Your task to perform on an android device: check out phone information Image 0: 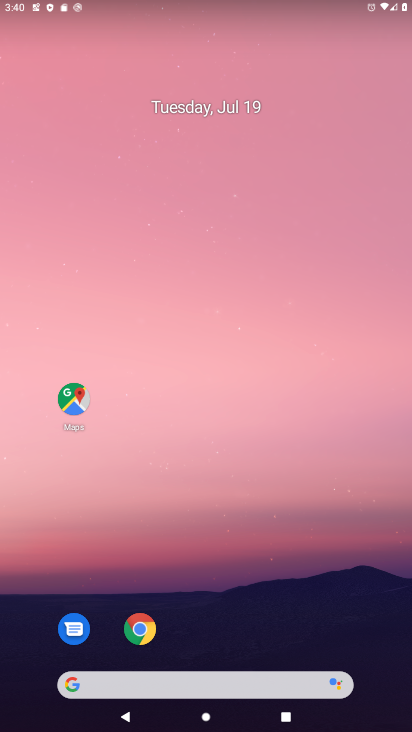
Step 0: drag from (239, 673) to (240, 200)
Your task to perform on an android device: check out phone information Image 1: 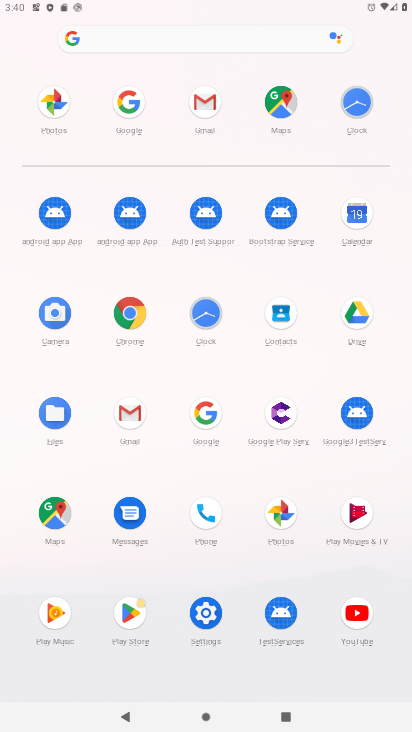
Step 1: click (213, 519)
Your task to perform on an android device: check out phone information Image 2: 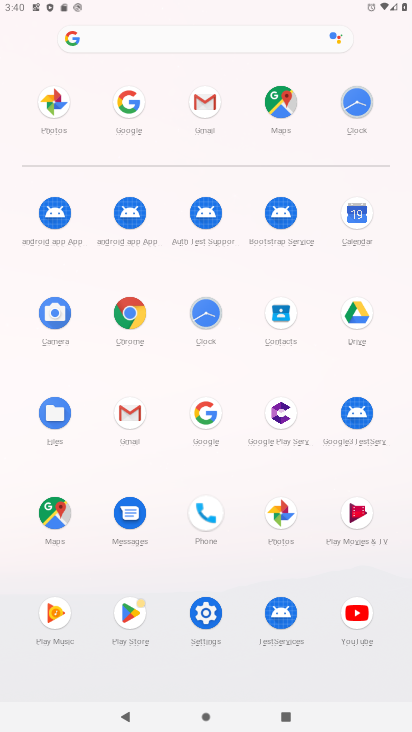
Step 2: click (213, 519)
Your task to perform on an android device: check out phone information Image 3: 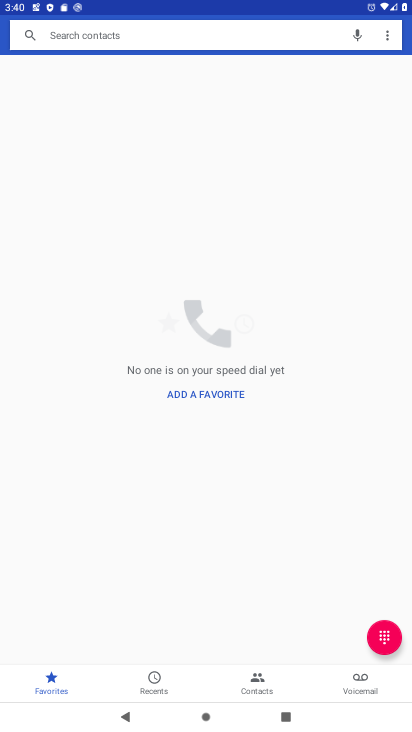
Step 3: press back button
Your task to perform on an android device: check out phone information Image 4: 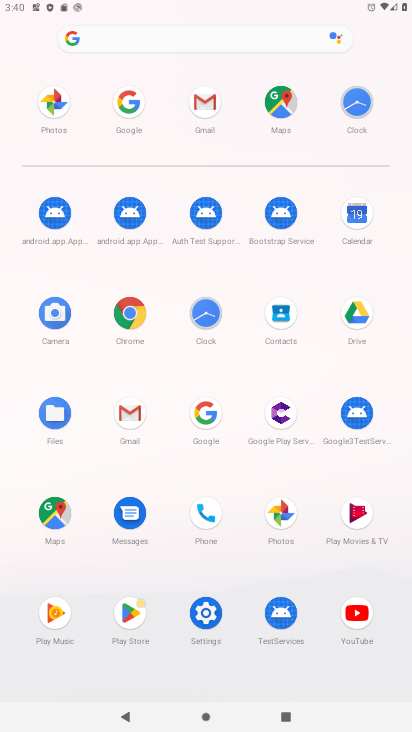
Step 4: click (206, 513)
Your task to perform on an android device: check out phone information Image 5: 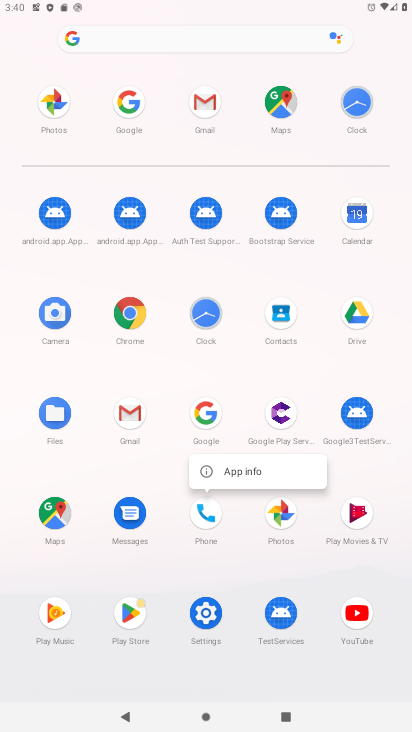
Step 5: click (224, 468)
Your task to perform on an android device: check out phone information Image 6: 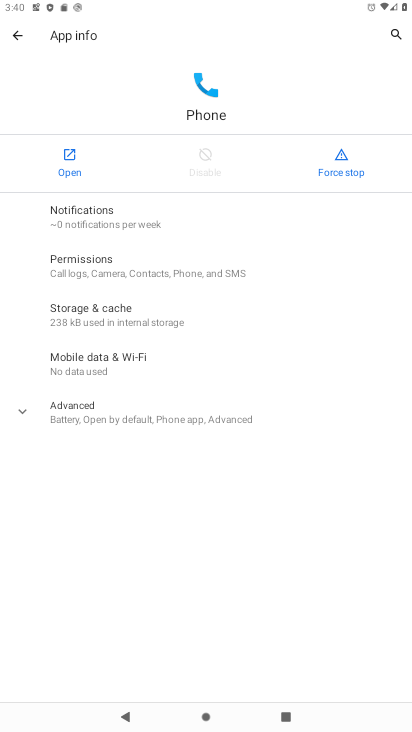
Step 6: click (60, 407)
Your task to perform on an android device: check out phone information Image 7: 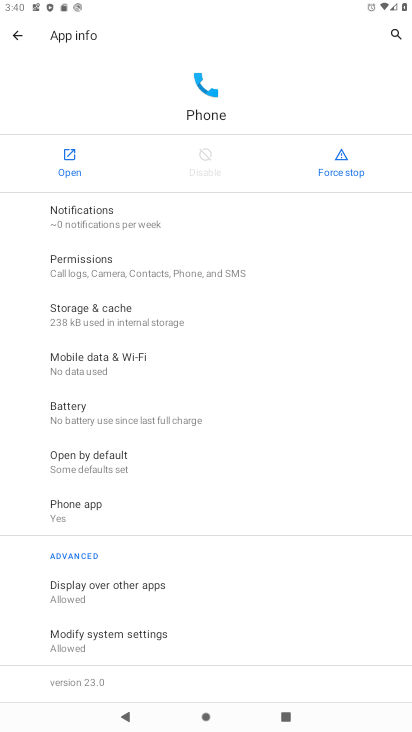
Step 7: task complete